Your task to perform on an android device: find snoozed emails in the gmail app Image 0: 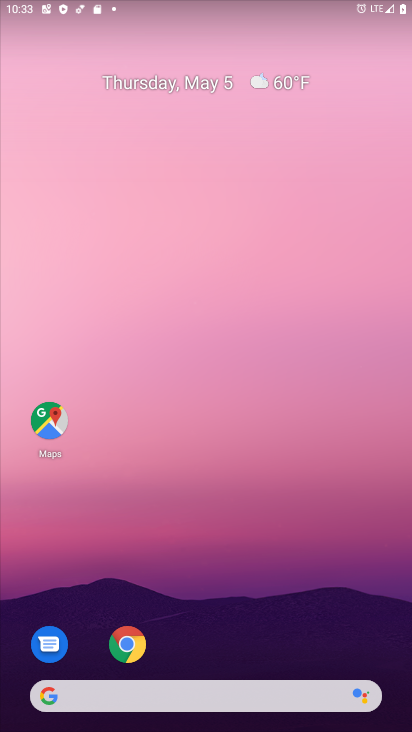
Step 0: drag from (260, 531) to (390, 38)
Your task to perform on an android device: find snoozed emails in the gmail app Image 1: 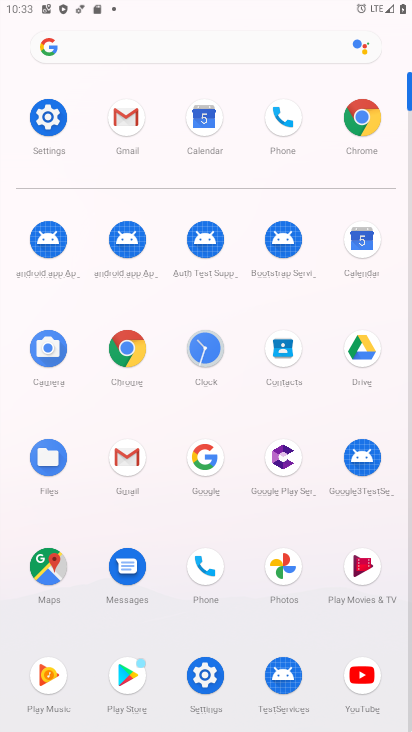
Step 1: click (143, 463)
Your task to perform on an android device: find snoozed emails in the gmail app Image 2: 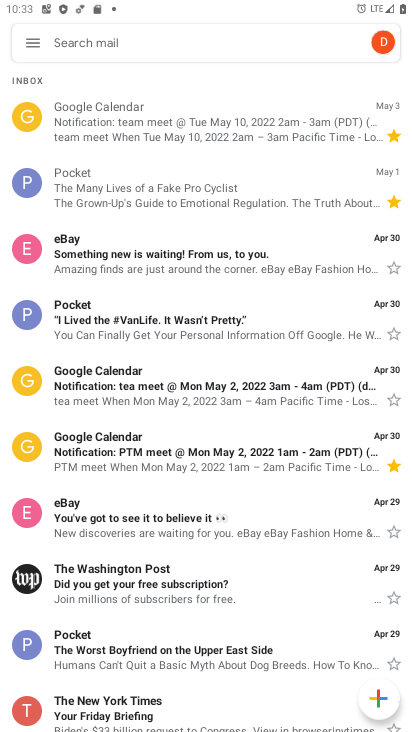
Step 2: click (28, 37)
Your task to perform on an android device: find snoozed emails in the gmail app Image 3: 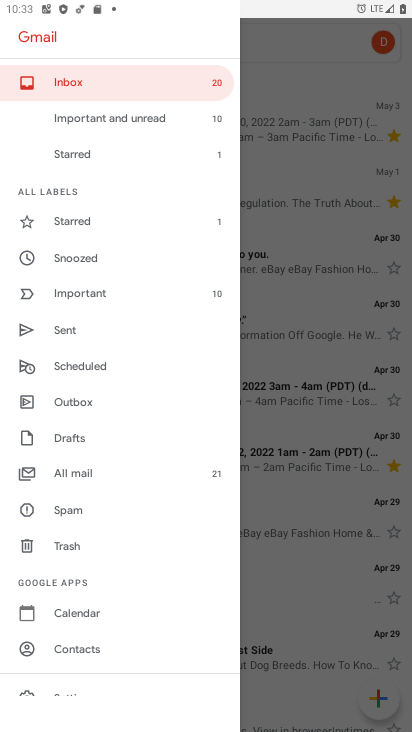
Step 3: click (114, 254)
Your task to perform on an android device: find snoozed emails in the gmail app Image 4: 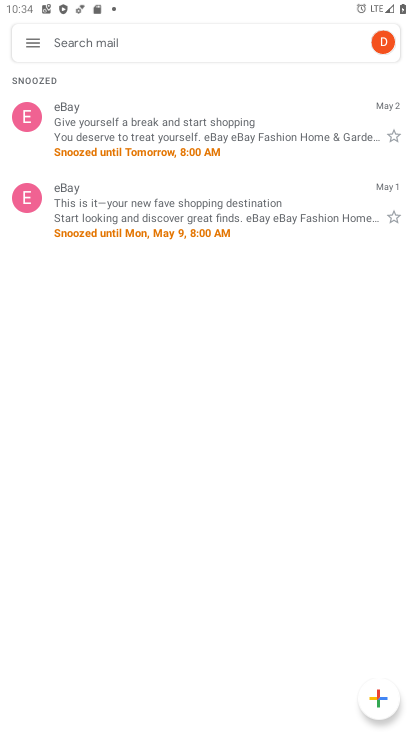
Step 4: task complete